Your task to perform on an android device: Play some music on YouTube Image 0: 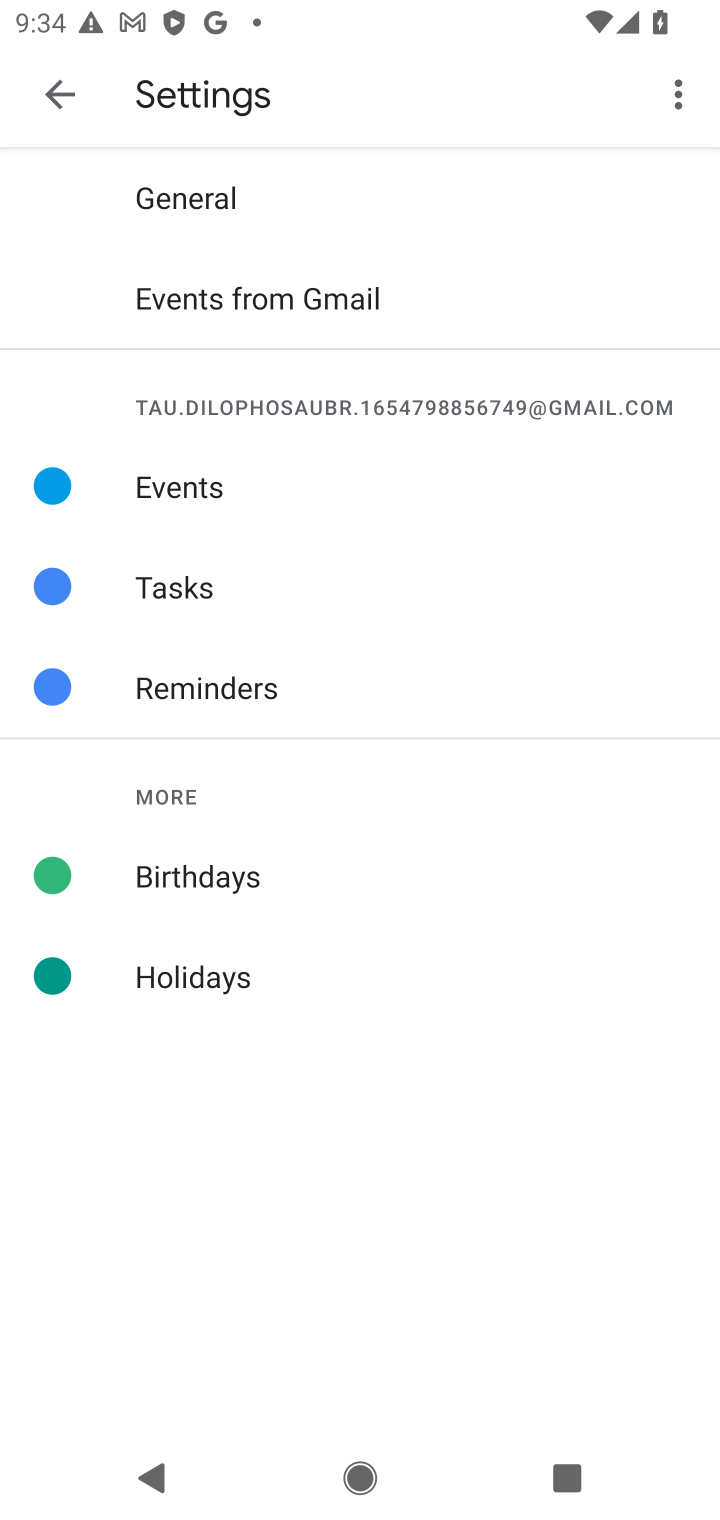
Step 0: press home button
Your task to perform on an android device: Play some music on YouTube Image 1: 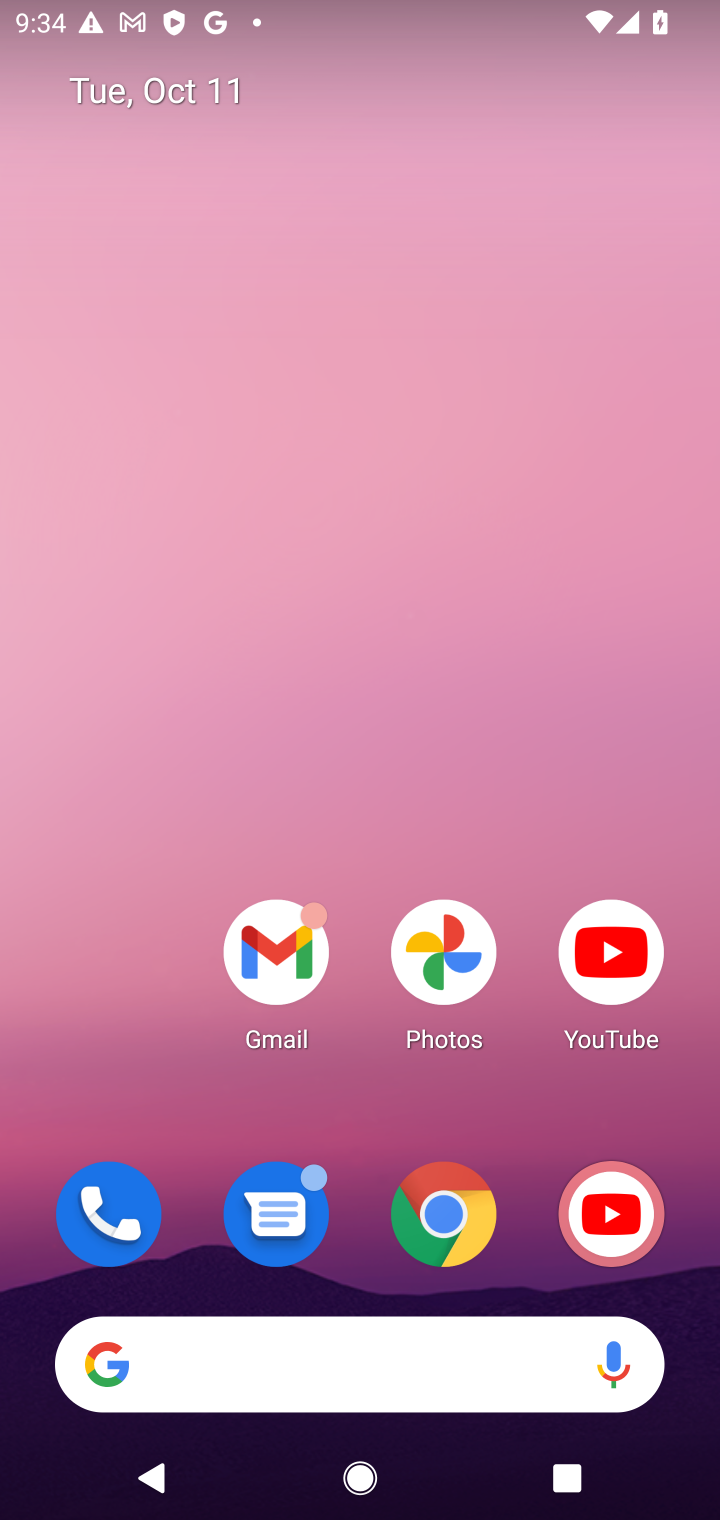
Step 1: drag from (540, 1087) to (422, 19)
Your task to perform on an android device: Play some music on YouTube Image 2: 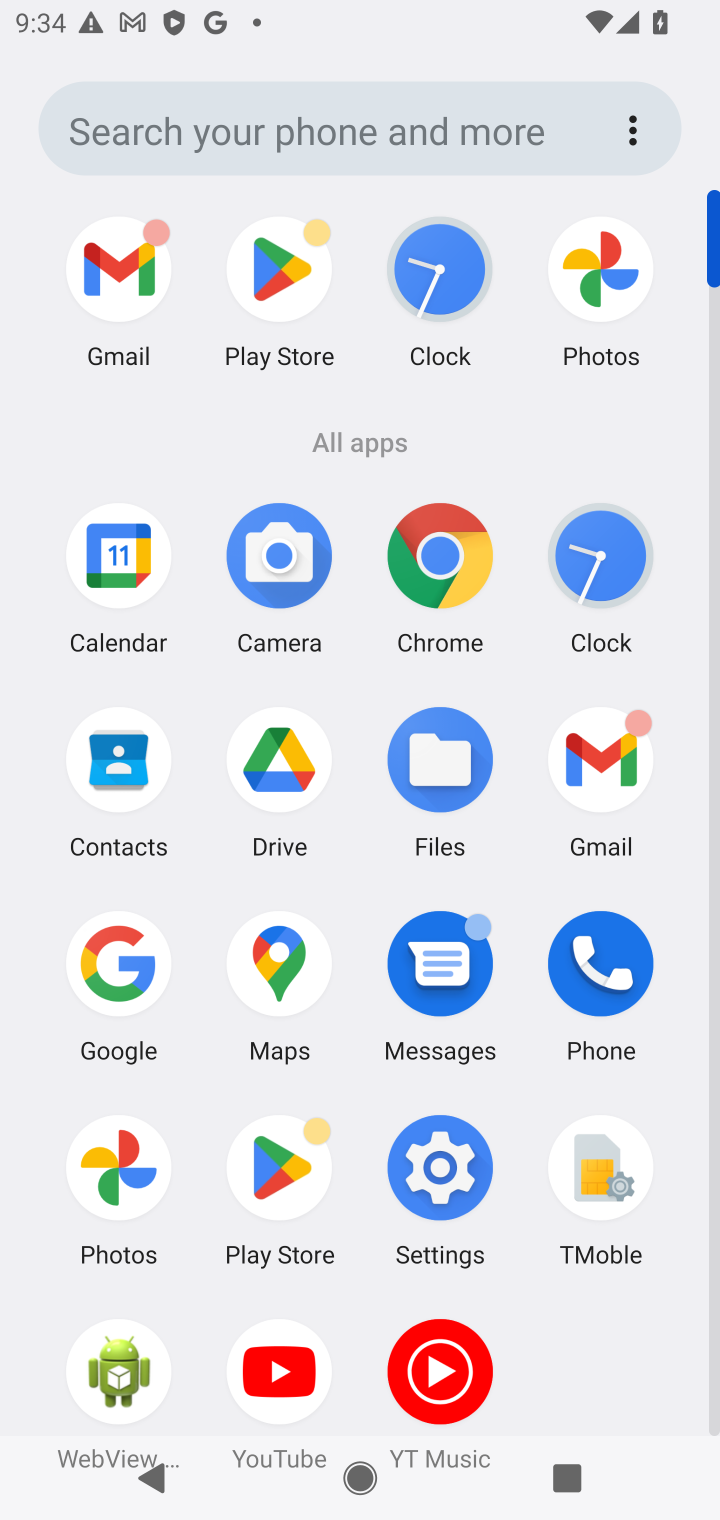
Step 2: click (261, 1358)
Your task to perform on an android device: Play some music on YouTube Image 3: 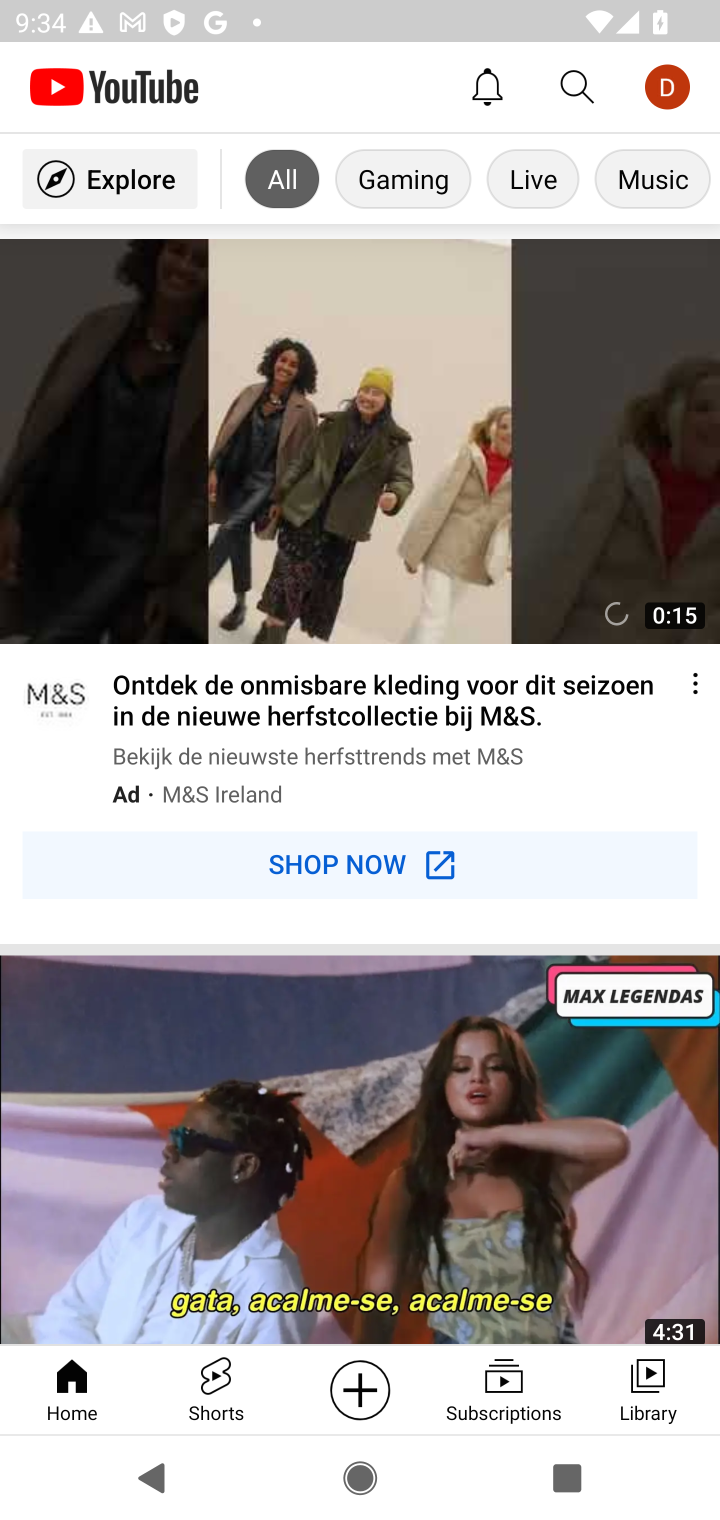
Step 3: click (581, 89)
Your task to perform on an android device: Play some music on YouTube Image 4: 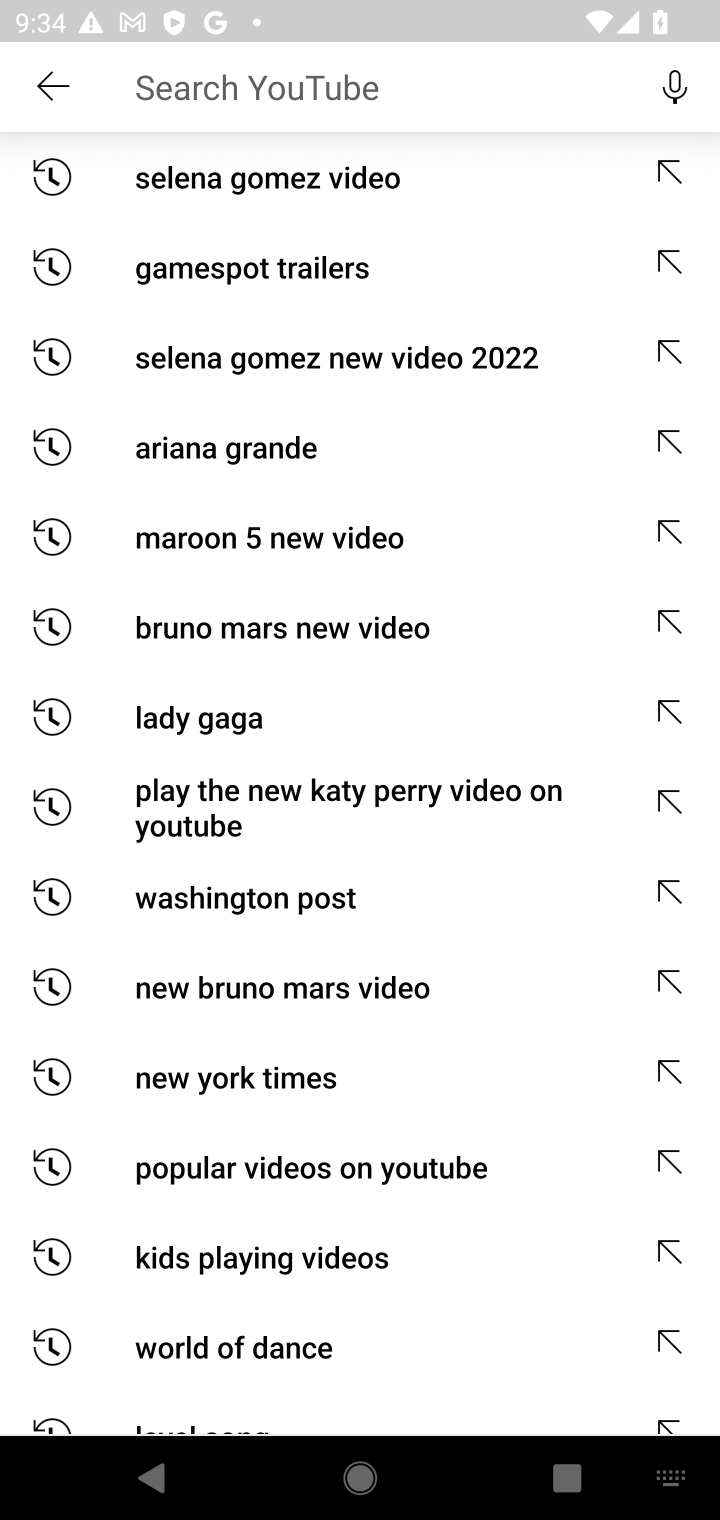
Step 4: type "natural"
Your task to perform on an android device: Play some music on YouTube Image 5: 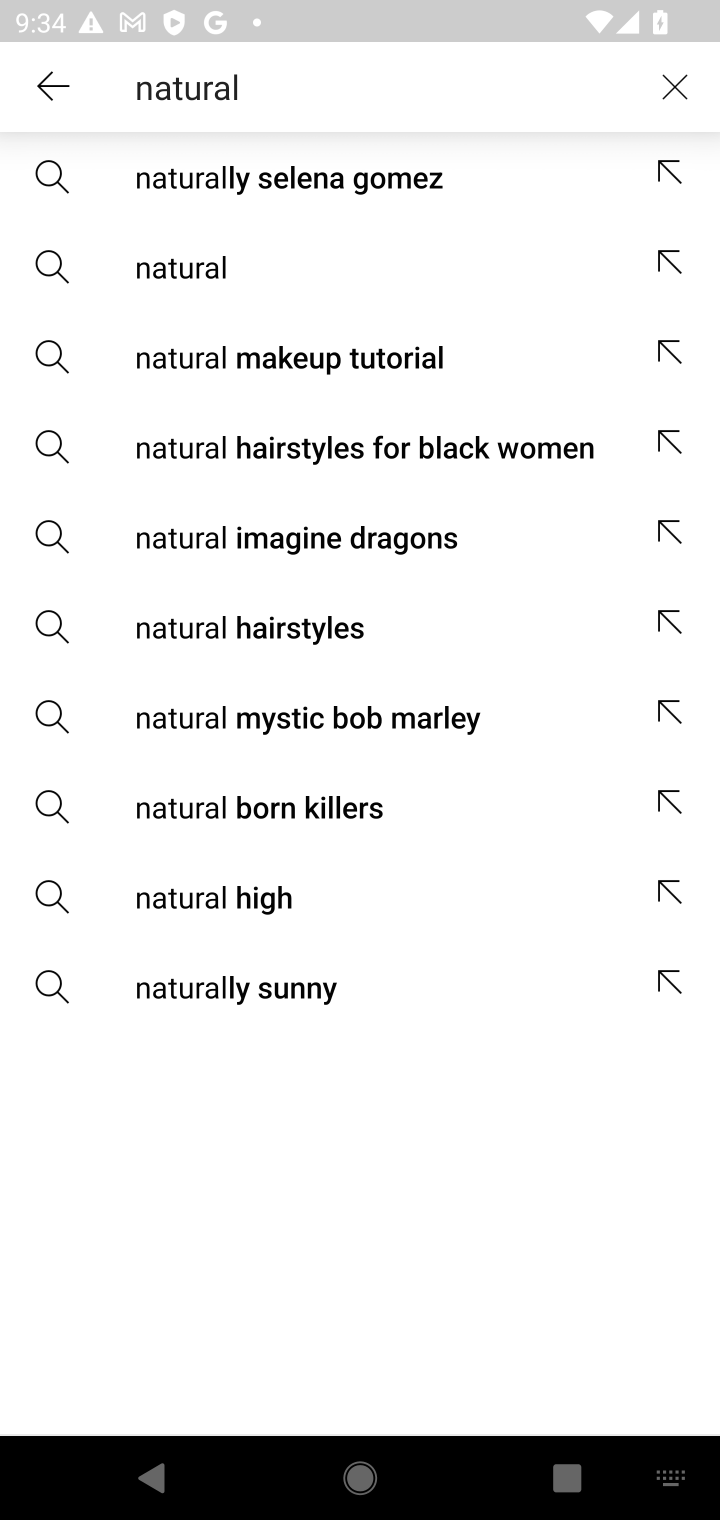
Step 5: click (309, 261)
Your task to perform on an android device: Play some music on YouTube Image 6: 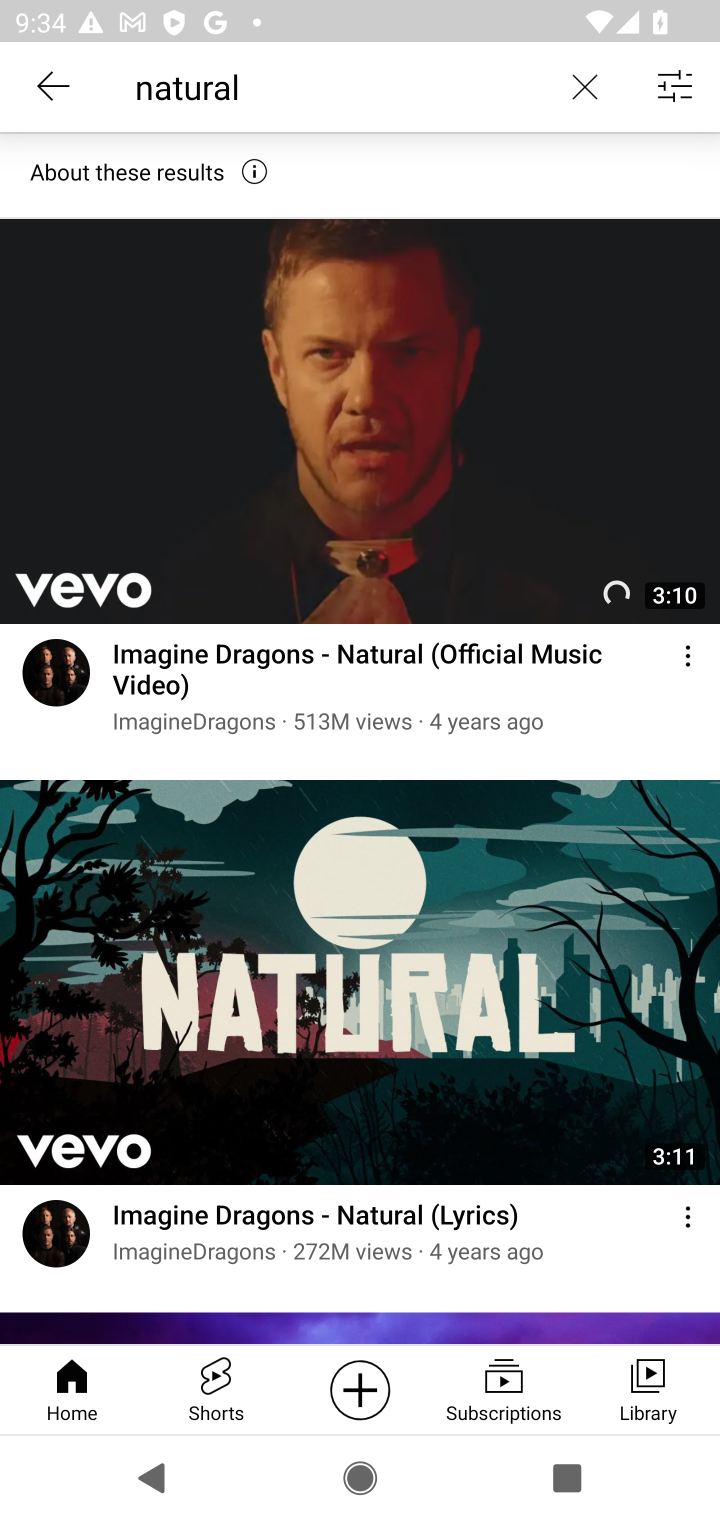
Step 6: click (400, 485)
Your task to perform on an android device: Play some music on YouTube Image 7: 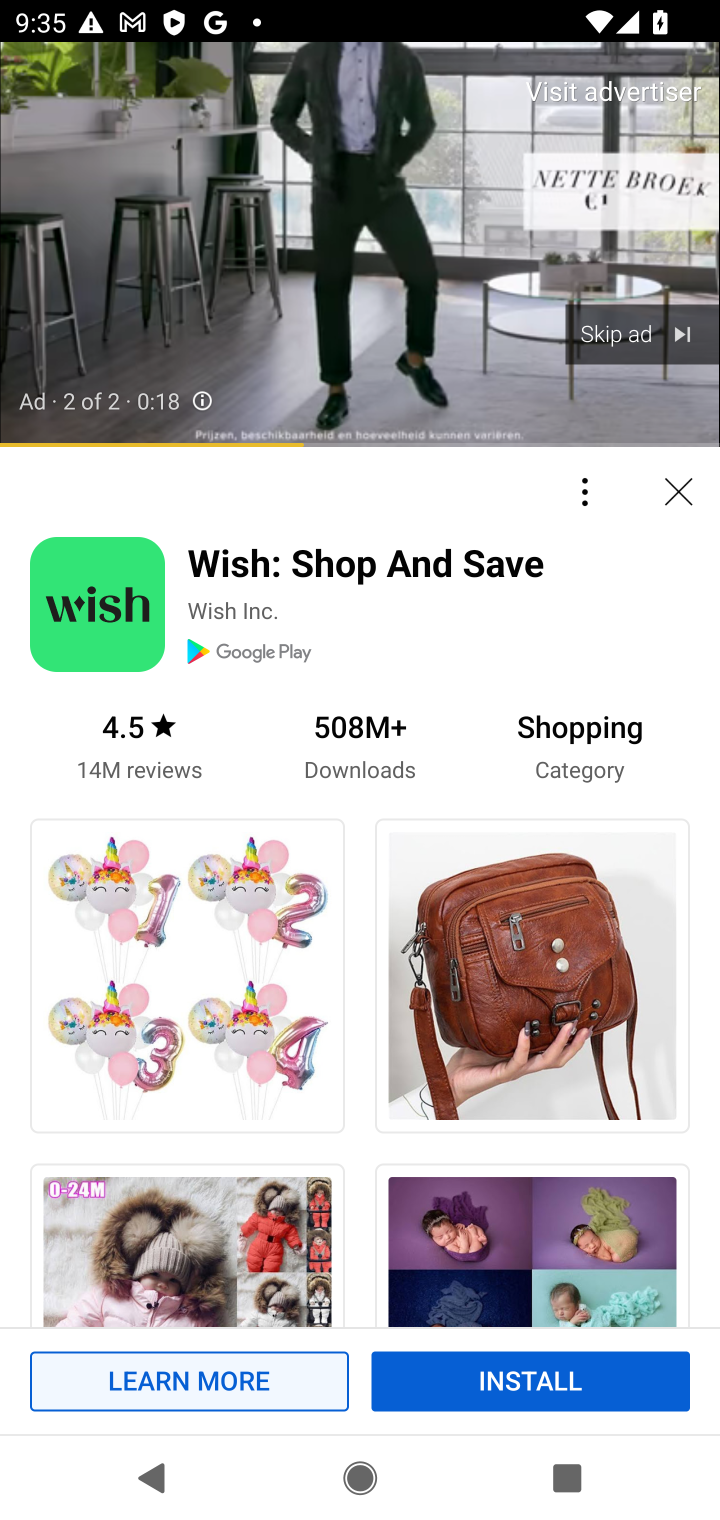
Step 7: click (609, 342)
Your task to perform on an android device: Play some music on YouTube Image 8: 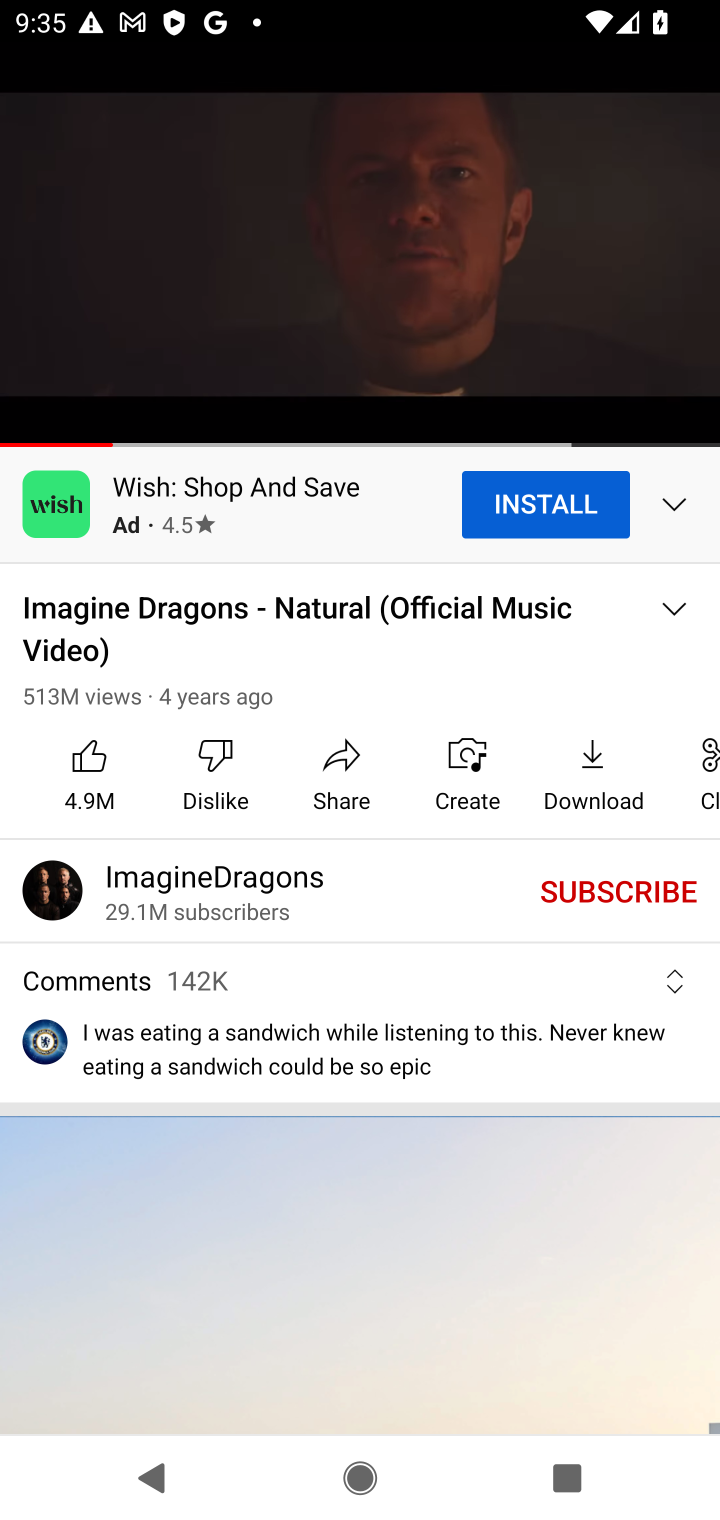
Step 8: task complete